Your task to perform on an android device: Turn on the flashlight Image 0: 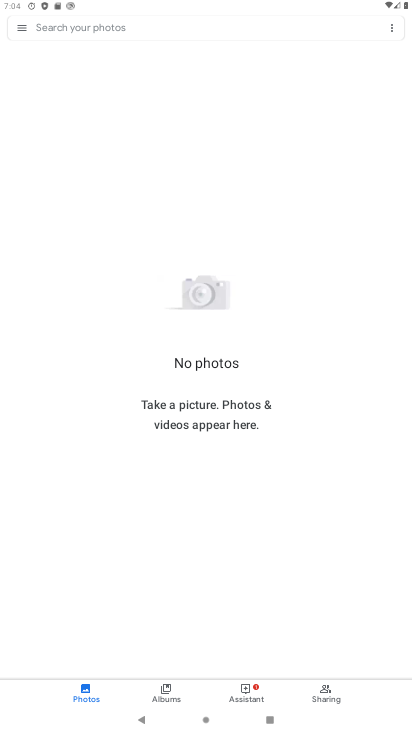
Step 0: press home button
Your task to perform on an android device: Turn on the flashlight Image 1: 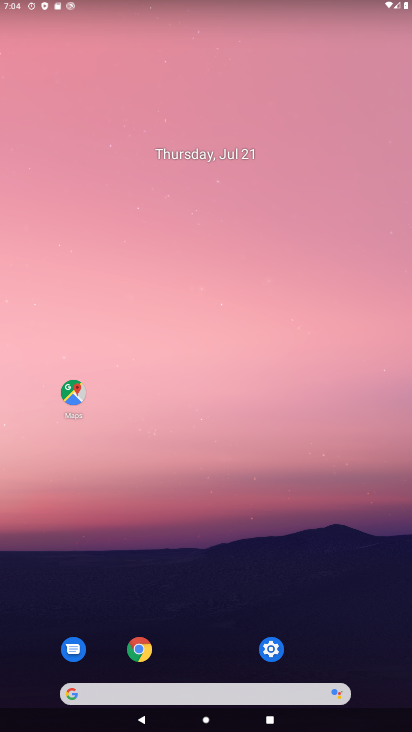
Step 1: click (266, 655)
Your task to perform on an android device: Turn on the flashlight Image 2: 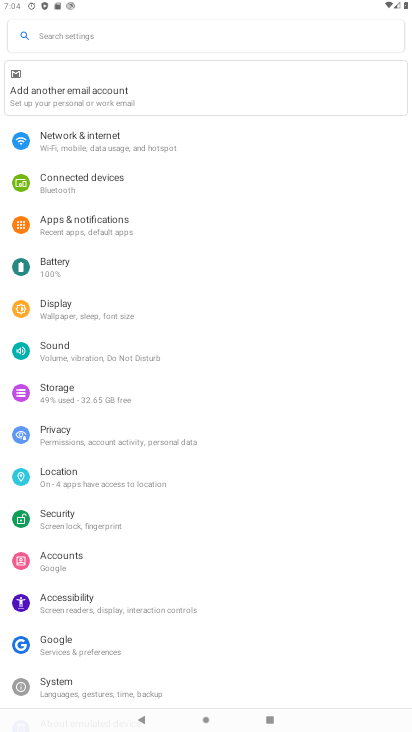
Step 2: click (76, 33)
Your task to perform on an android device: Turn on the flashlight Image 3: 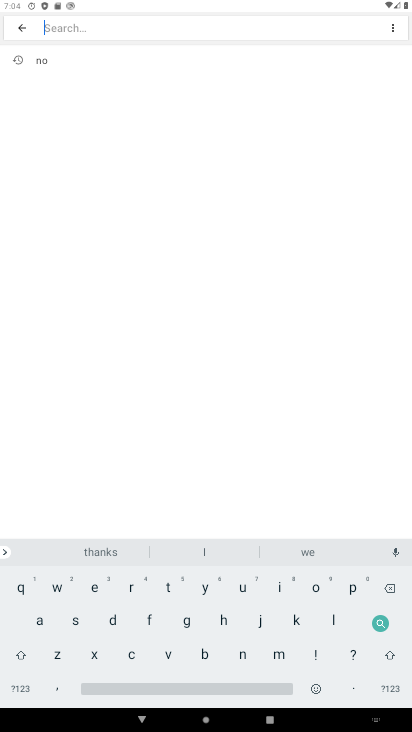
Step 3: click (146, 621)
Your task to perform on an android device: Turn on the flashlight Image 4: 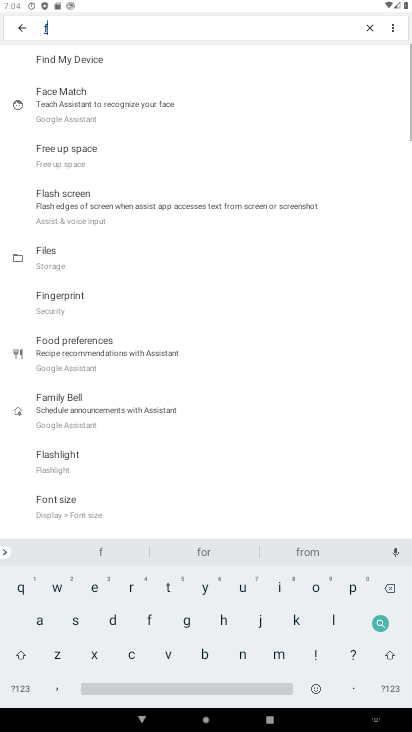
Step 4: click (334, 617)
Your task to perform on an android device: Turn on the flashlight Image 5: 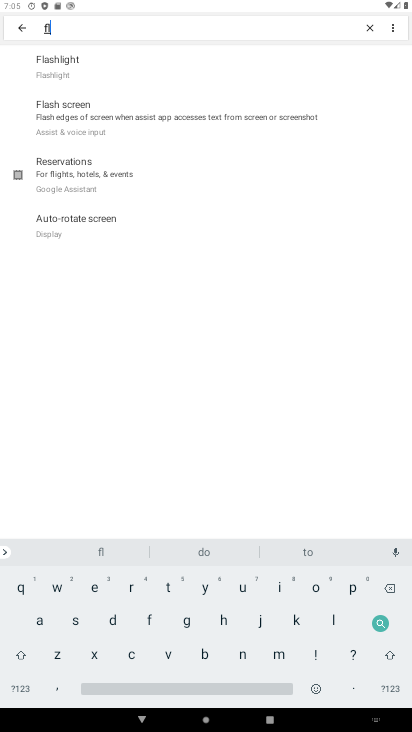
Step 5: click (56, 73)
Your task to perform on an android device: Turn on the flashlight Image 6: 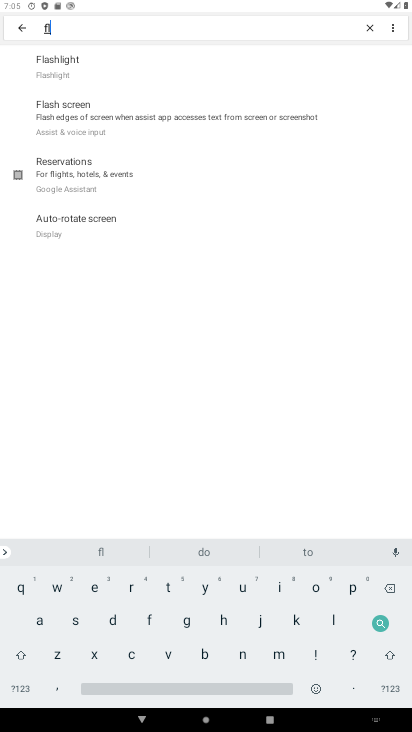
Step 6: click (56, 73)
Your task to perform on an android device: Turn on the flashlight Image 7: 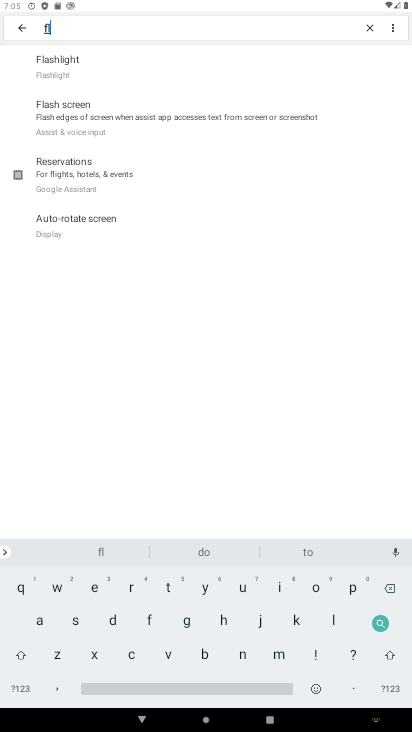
Step 7: task complete